Your task to perform on an android device: turn off javascript in the chrome app Image 0: 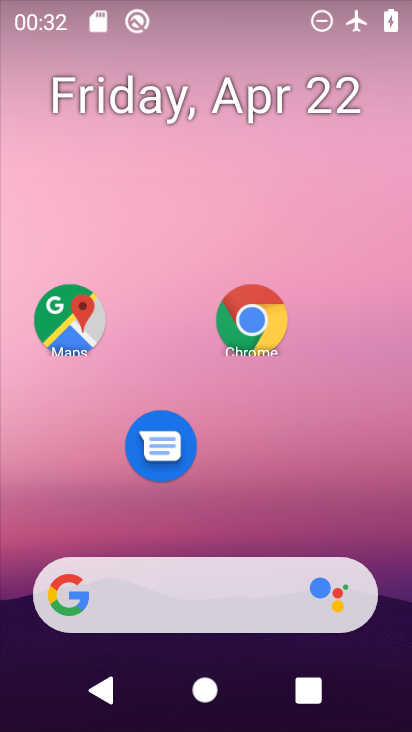
Step 0: click (183, 83)
Your task to perform on an android device: turn off javascript in the chrome app Image 1: 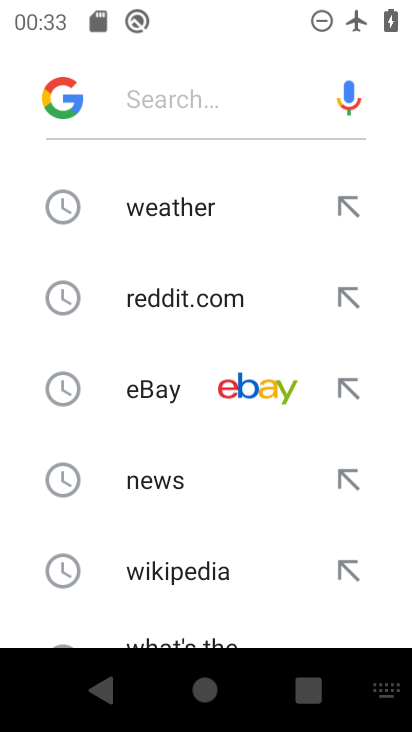
Step 1: press home button
Your task to perform on an android device: turn off javascript in the chrome app Image 2: 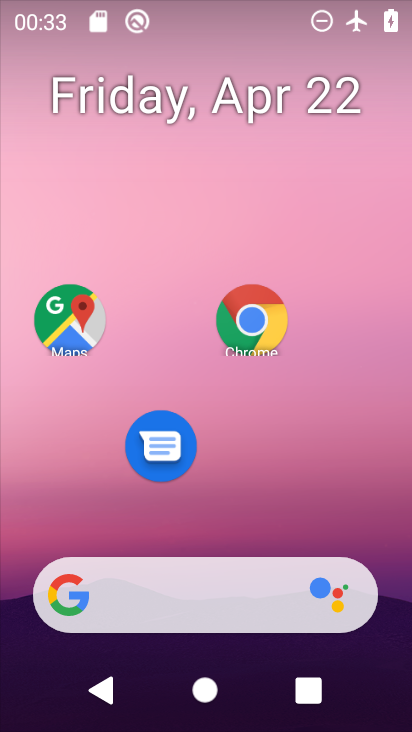
Step 2: drag from (195, 529) to (192, 188)
Your task to perform on an android device: turn off javascript in the chrome app Image 3: 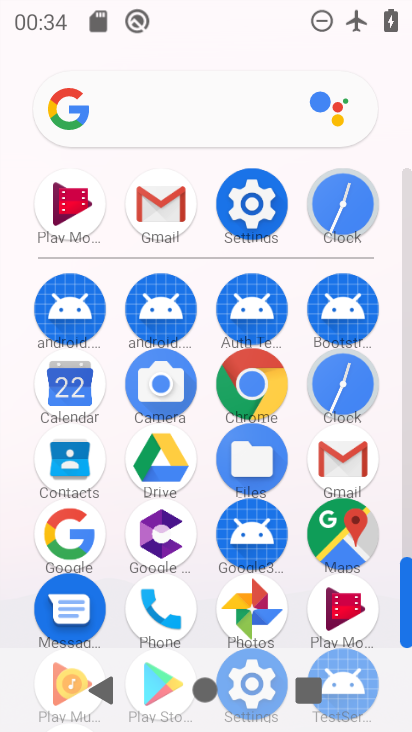
Step 3: click (258, 380)
Your task to perform on an android device: turn off javascript in the chrome app Image 4: 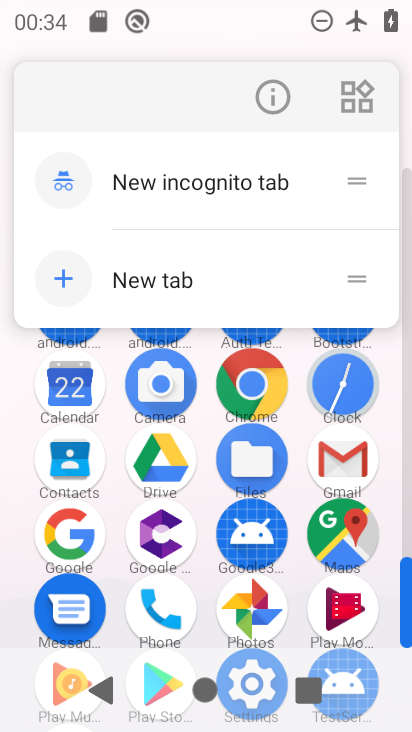
Step 4: click (266, 109)
Your task to perform on an android device: turn off javascript in the chrome app Image 5: 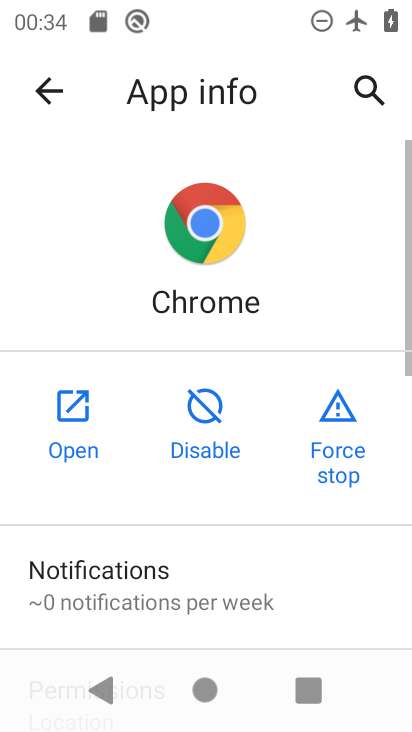
Step 5: click (77, 426)
Your task to perform on an android device: turn off javascript in the chrome app Image 6: 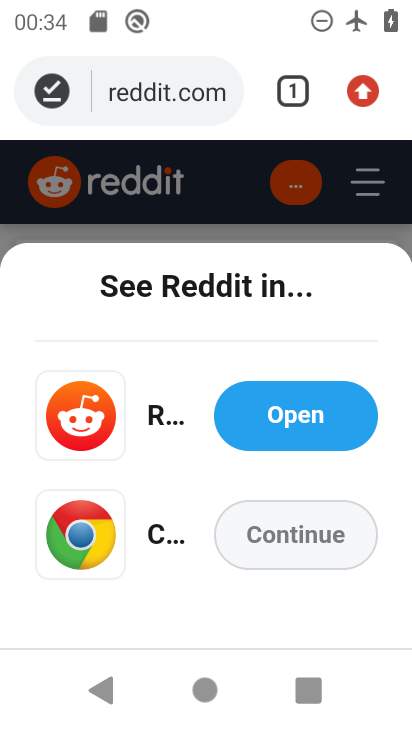
Step 6: click (369, 100)
Your task to perform on an android device: turn off javascript in the chrome app Image 7: 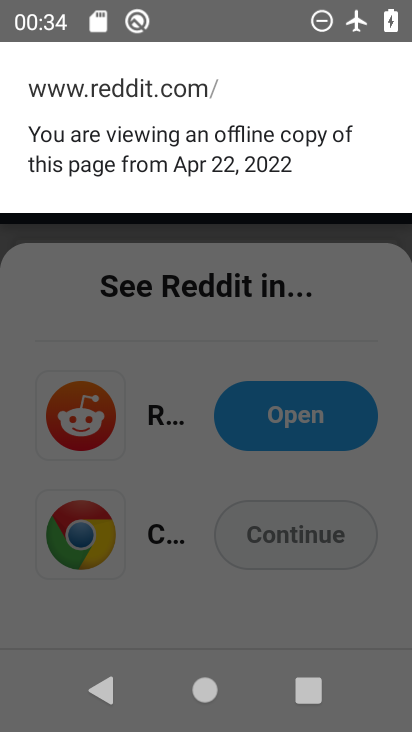
Step 7: click (313, 235)
Your task to perform on an android device: turn off javascript in the chrome app Image 8: 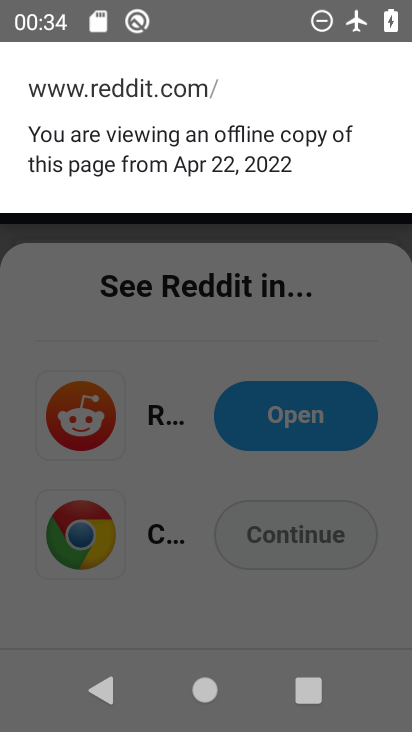
Step 8: click (398, 238)
Your task to perform on an android device: turn off javascript in the chrome app Image 9: 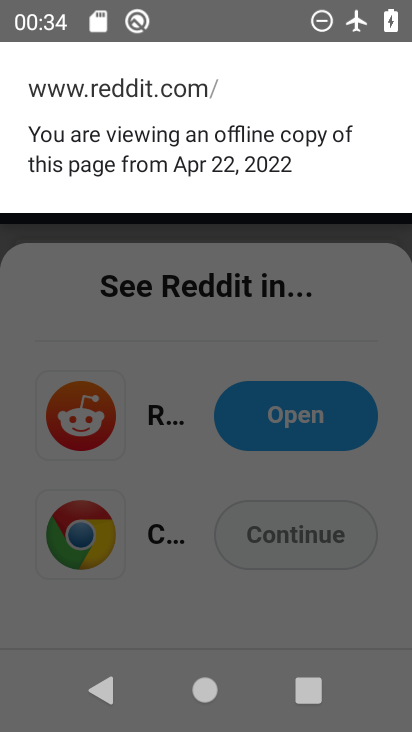
Step 9: click (269, 145)
Your task to perform on an android device: turn off javascript in the chrome app Image 10: 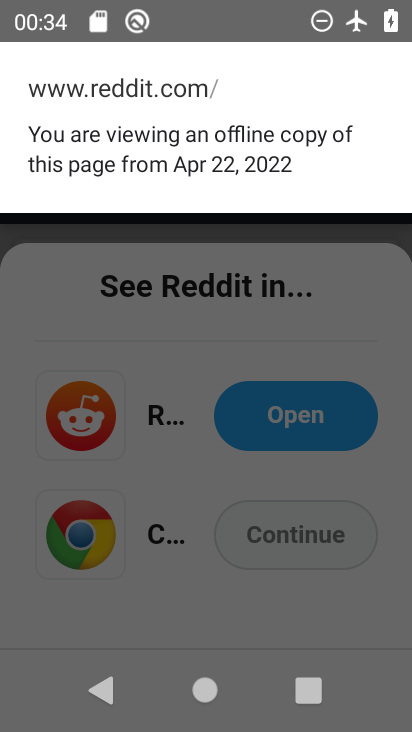
Step 10: click (197, 125)
Your task to perform on an android device: turn off javascript in the chrome app Image 11: 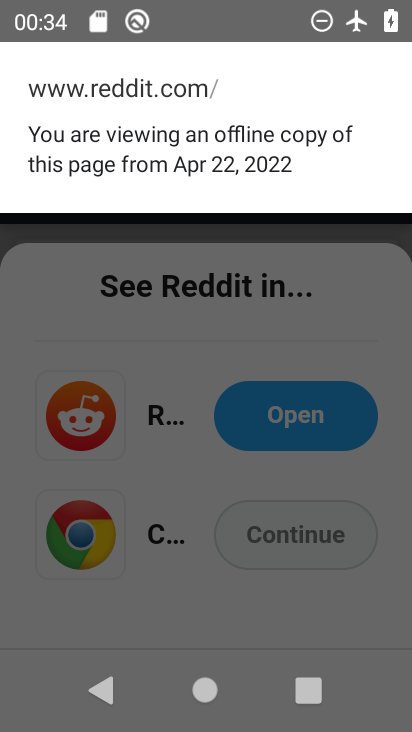
Step 11: click (139, 93)
Your task to perform on an android device: turn off javascript in the chrome app Image 12: 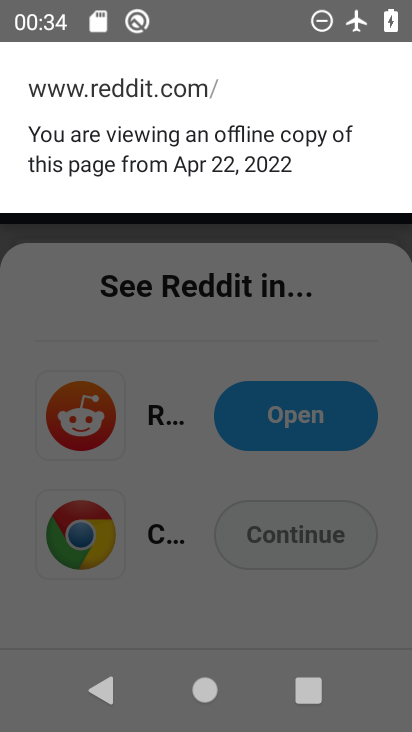
Step 12: click (290, 256)
Your task to perform on an android device: turn off javascript in the chrome app Image 13: 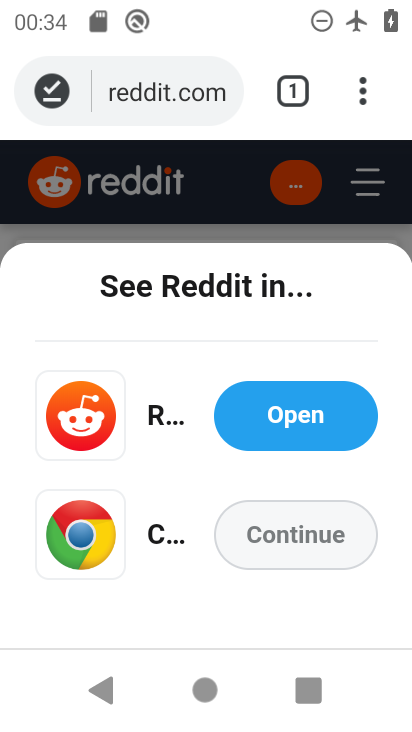
Step 13: press back button
Your task to perform on an android device: turn off javascript in the chrome app Image 14: 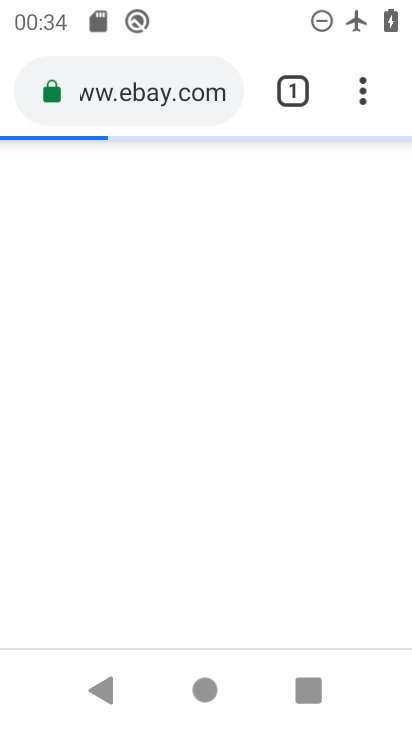
Step 14: click (367, 98)
Your task to perform on an android device: turn off javascript in the chrome app Image 15: 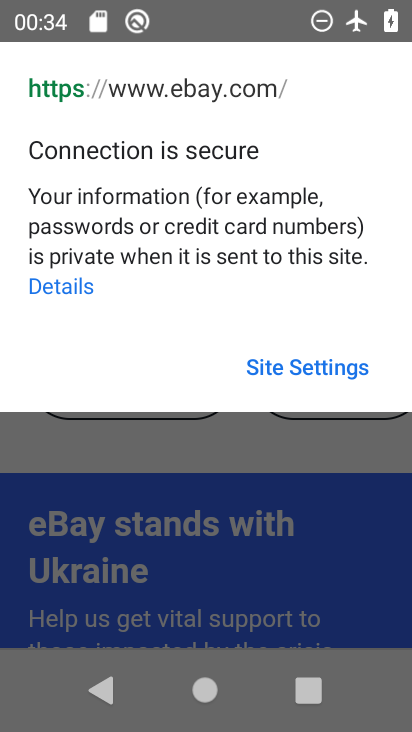
Step 15: click (306, 368)
Your task to perform on an android device: turn off javascript in the chrome app Image 16: 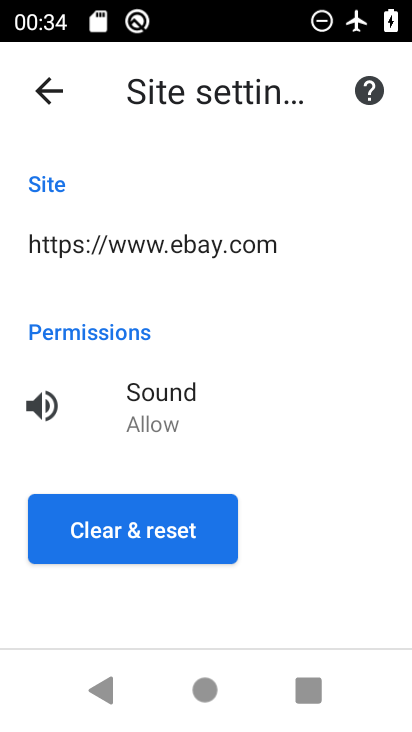
Step 16: click (35, 76)
Your task to perform on an android device: turn off javascript in the chrome app Image 17: 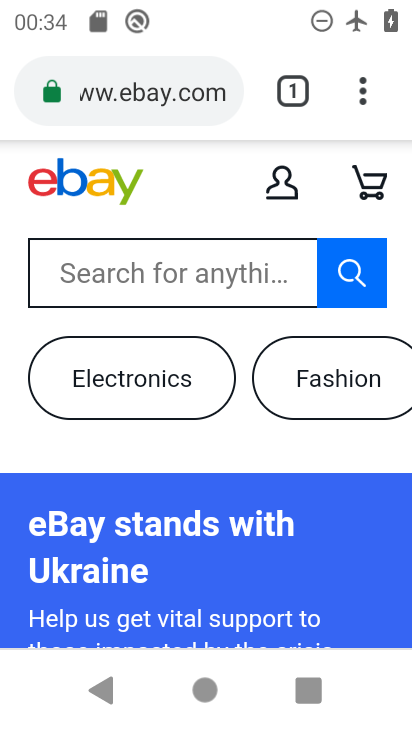
Step 17: drag from (356, 100) to (188, 475)
Your task to perform on an android device: turn off javascript in the chrome app Image 18: 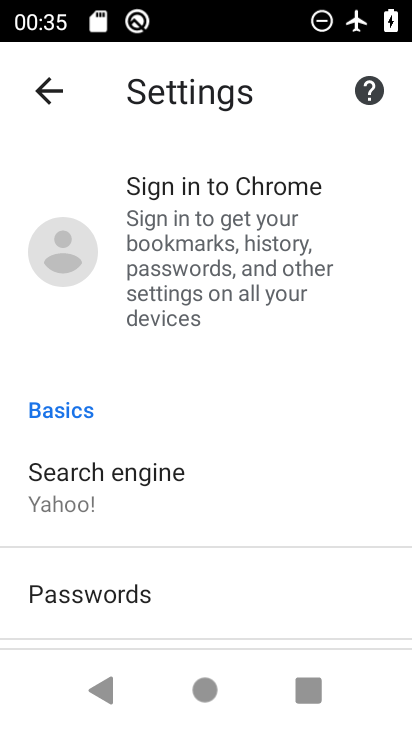
Step 18: drag from (215, 587) to (251, 227)
Your task to perform on an android device: turn off javascript in the chrome app Image 19: 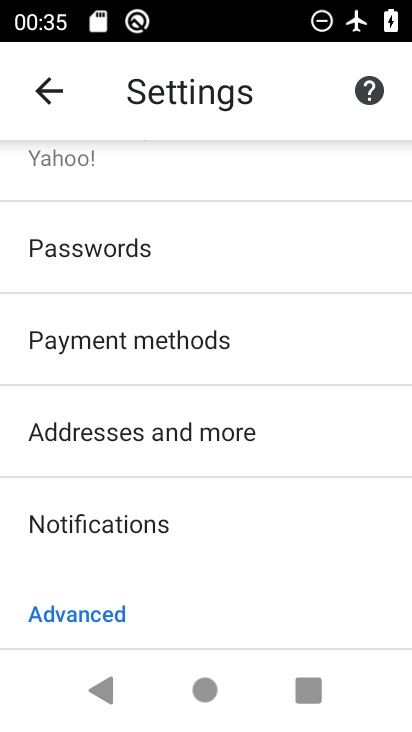
Step 19: drag from (184, 538) to (219, 169)
Your task to perform on an android device: turn off javascript in the chrome app Image 20: 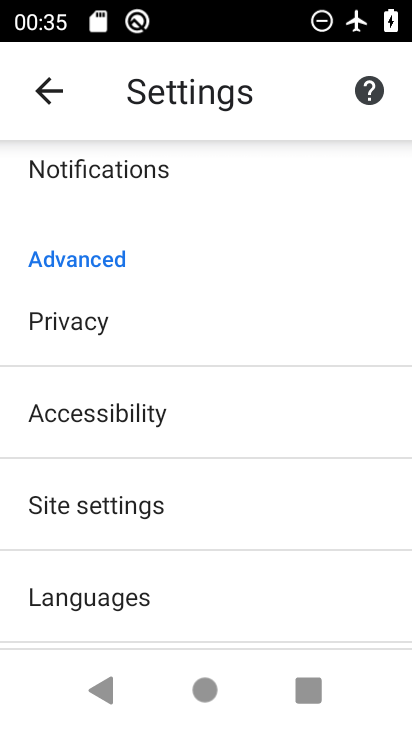
Step 20: drag from (149, 556) to (188, 300)
Your task to perform on an android device: turn off javascript in the chrome app Image 21: 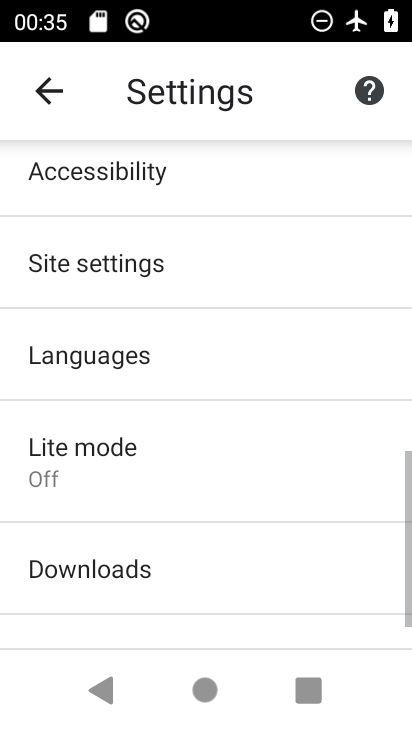
Step 21: click (143, 240)
Your task to perform on an android device: turn off javascript in the chrome app Image 22: 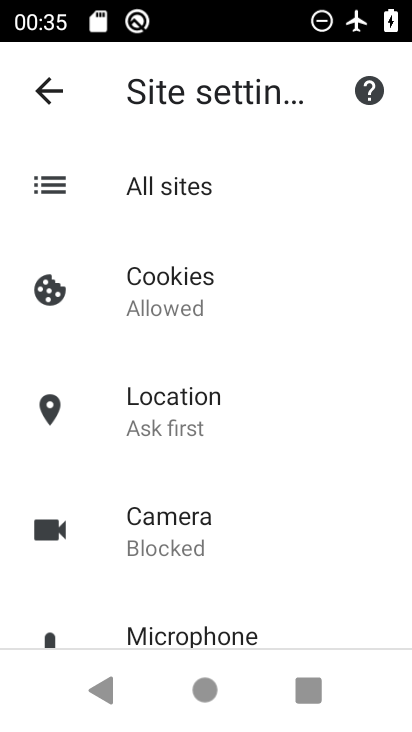
Step 22: drag from (219, 424) to (244, 159)
Your task to perform on an android device: turn off javascript in the chrome app Image 23: 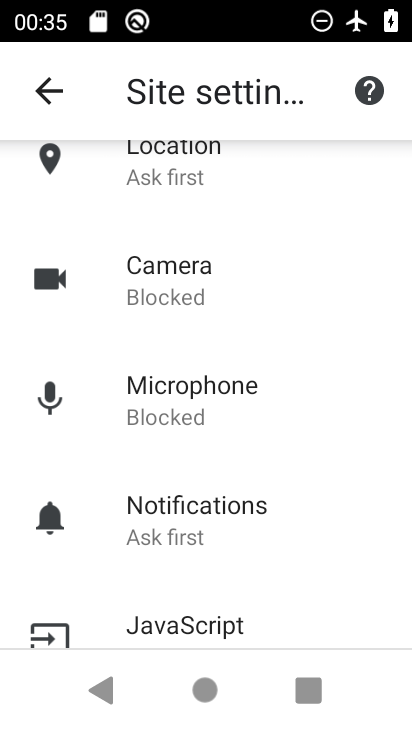
Step 23: click (229, 610)
Your task to perform on an android device: turn off javascript in the chrome app Image 24: 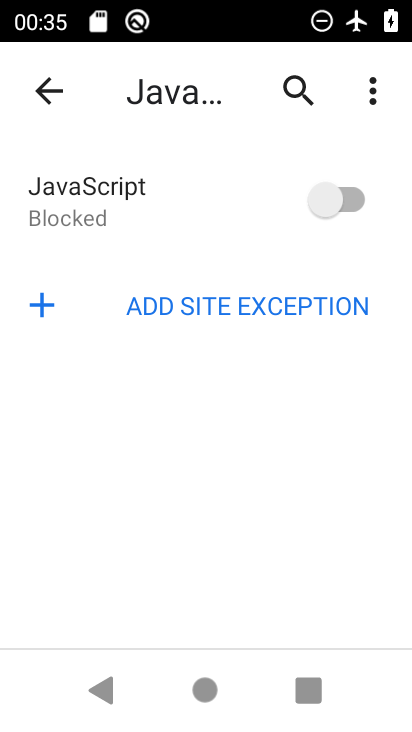
Step 24: task complete